Your task to perform on an android device: read, delete, or share a saved page in the chrome app Image 0: 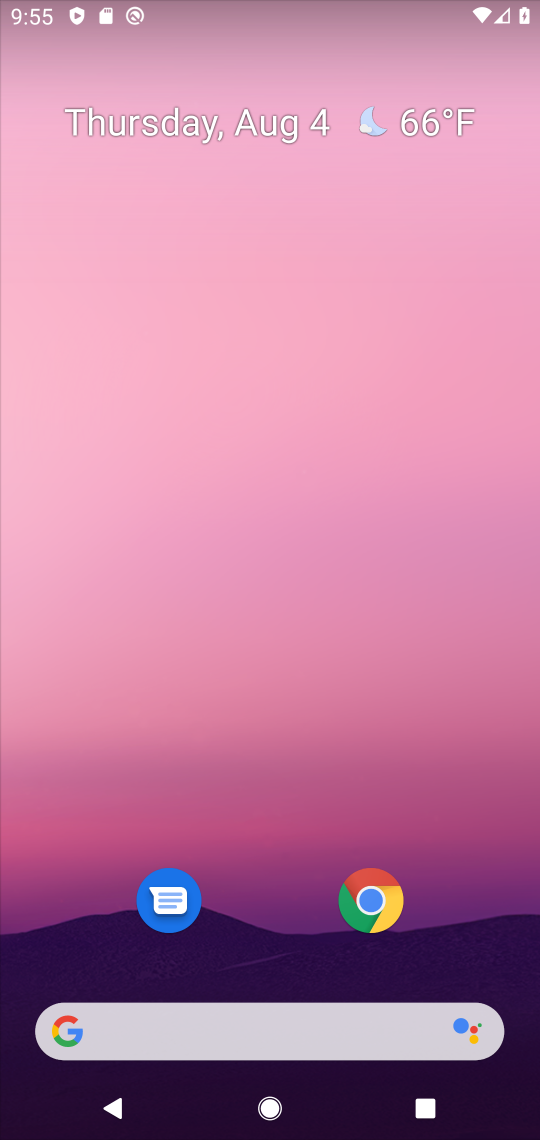
Step 0: drag from (441, 568) to (380, 117)
Your task to perform on an android device: read, delete, or share a saved page in the chrome app Image 1: 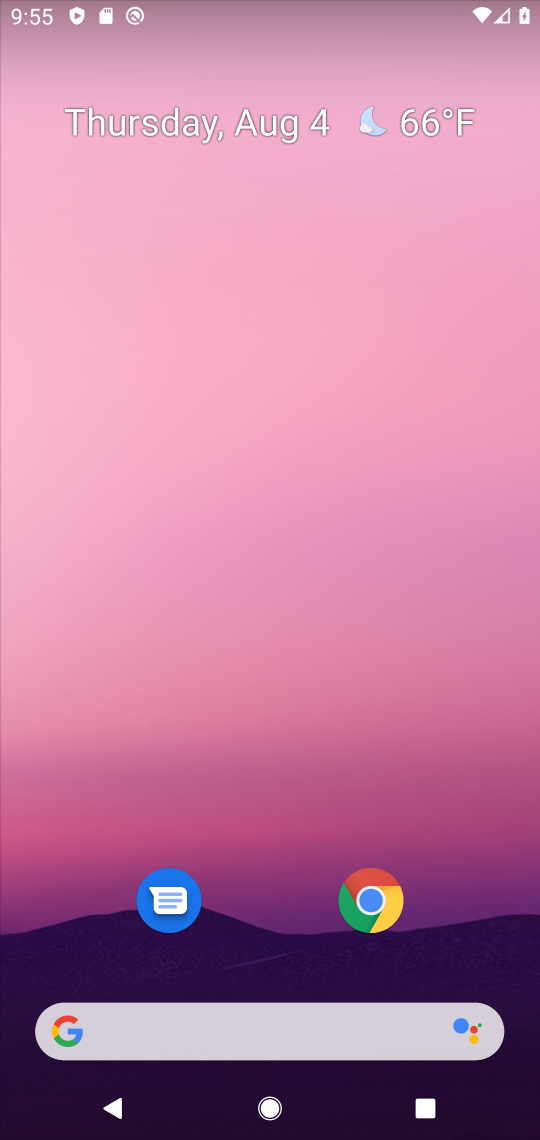
Step 1: drag from (301, 978) to (222, 307)
Your task to perform on an android device: read, delete, or share a saved page in the chrome app Image 2: 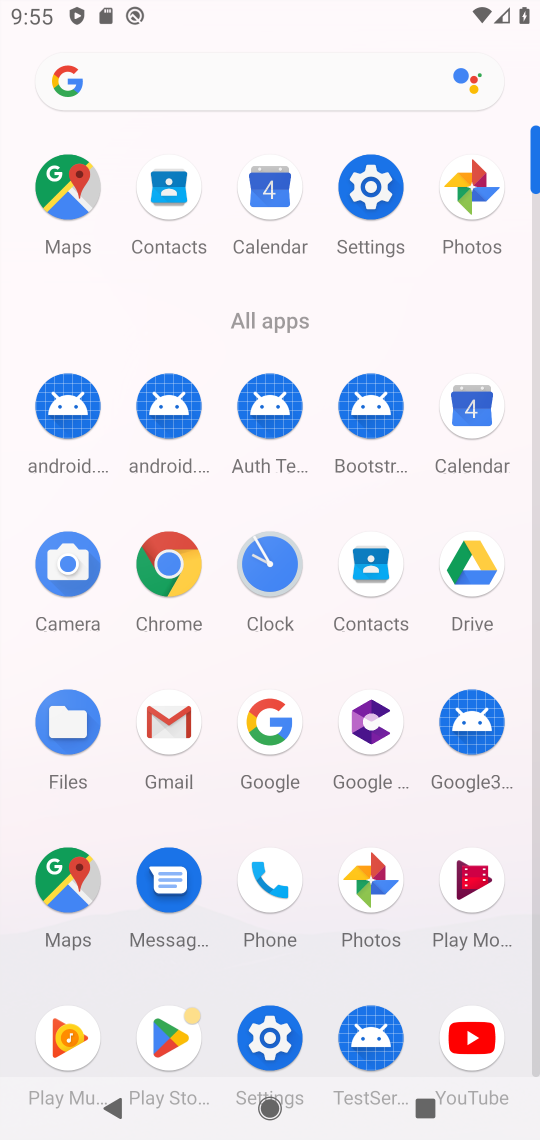
Step 2: click (195, 568)
Your task to perform on an android device: read, delete, or share a saved page in the chrome app Image 3: 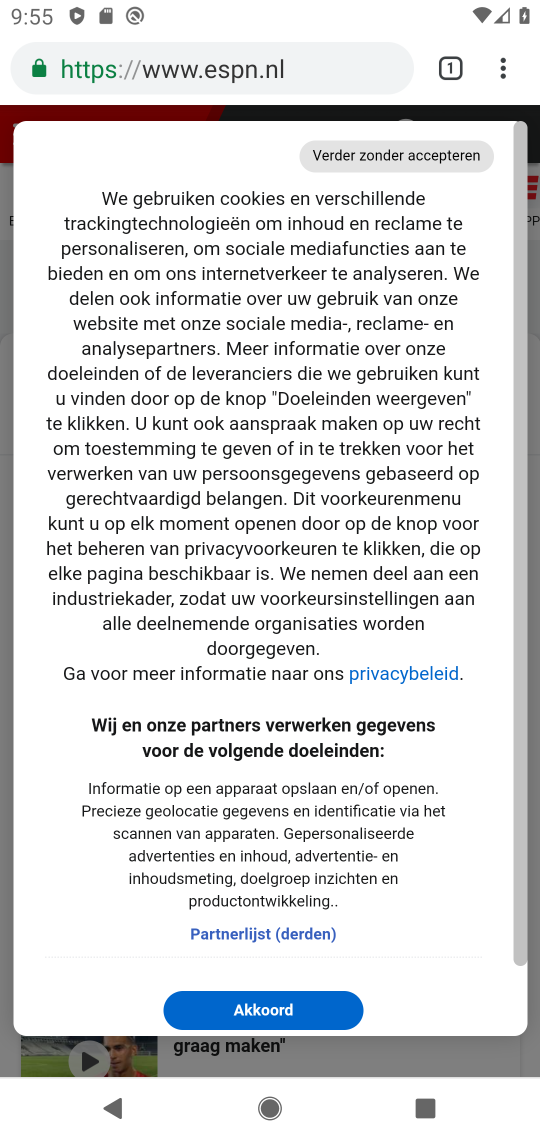
Step 3: click (493, 76)
Your task to perform on an android device: read, delete, or share a saved page in the chrome app Image 4: 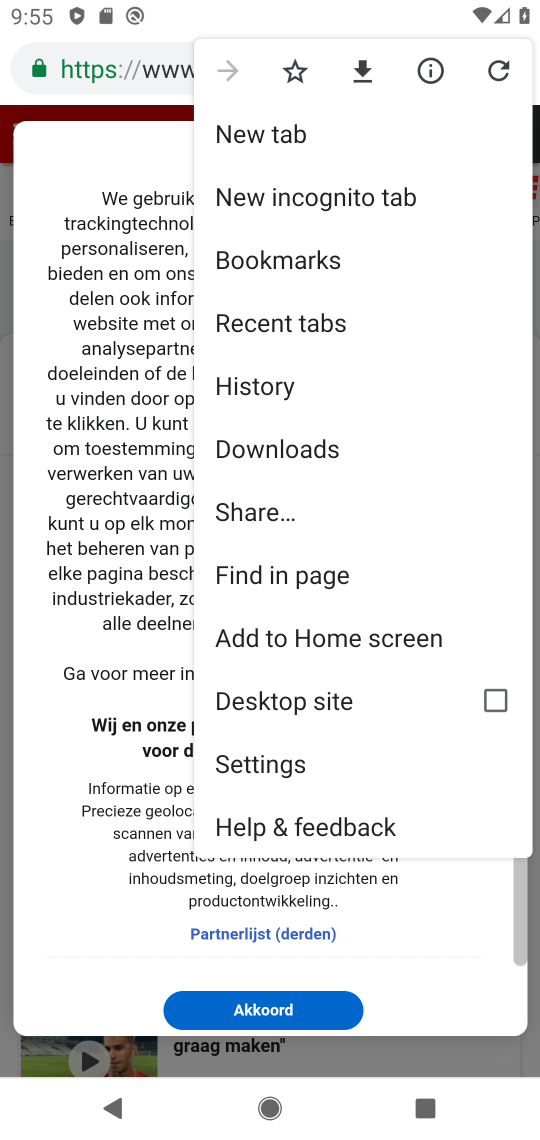
Step 4: click (337, 443)
Your task to perform on an android device: read, delete, or share a saved page in the chrome app Image 5: 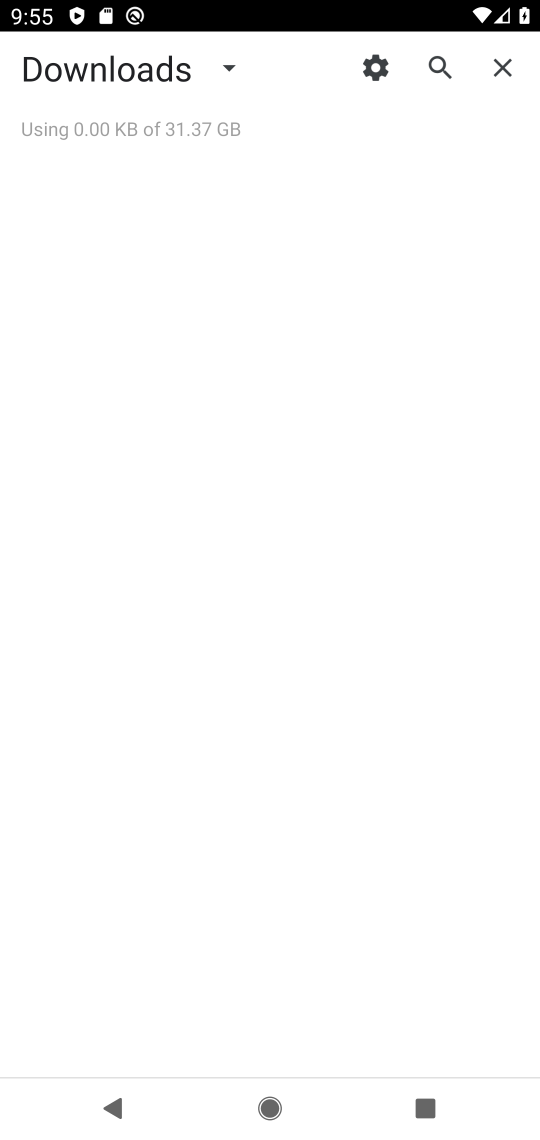
Step 5: click (233, 77)
Your task to perform on an android device: read, delete, or share a saved page in the chrome app Image 6: 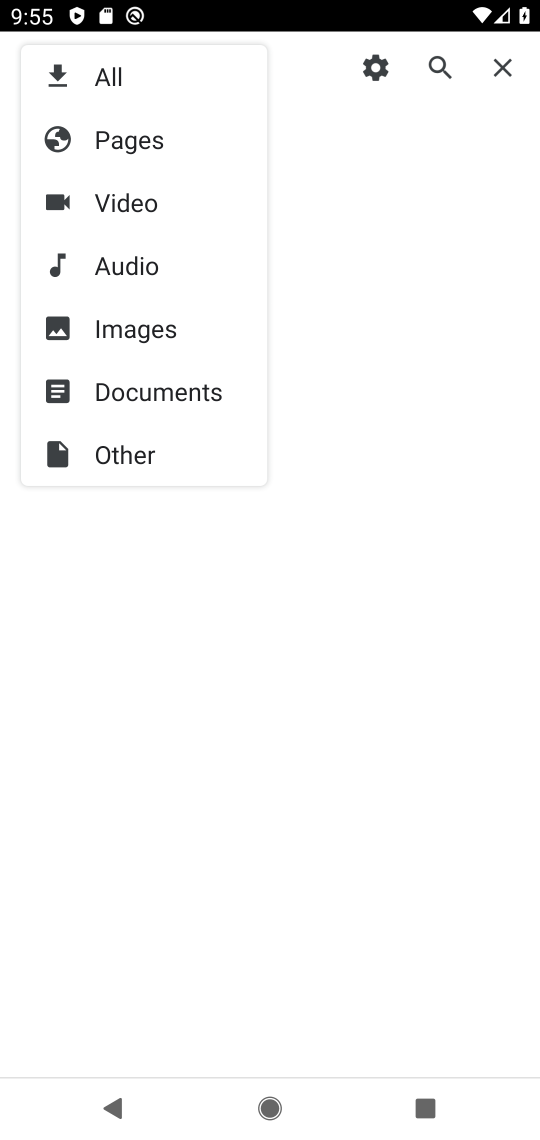
Step 6: click (133, 157)
Your task to perform on an android device: read, delete, or share a saved page in the chrome app Image 7: 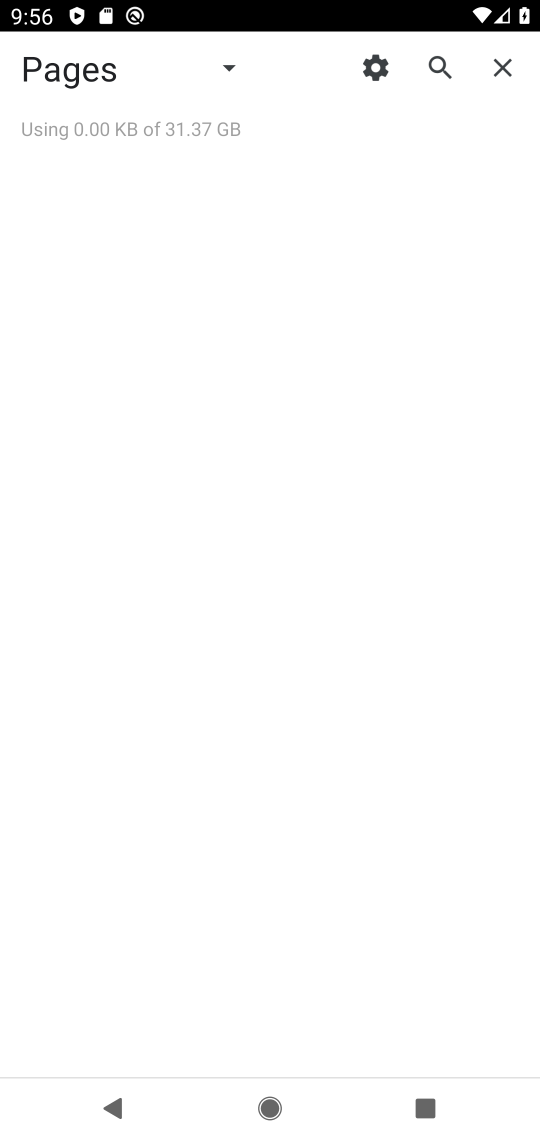
Step 7: task complete